Your task to perform on an android device: See recent photos Image 0: 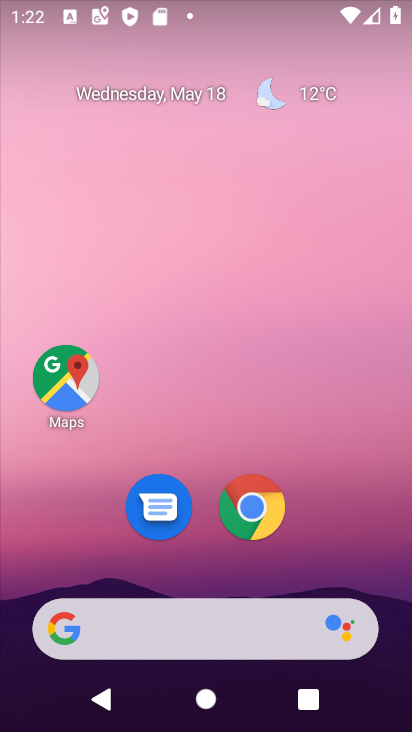
Step 0: drag from (396, 623) to (318, 154)
Your task to perform on an android device: See recent photos Image 1: 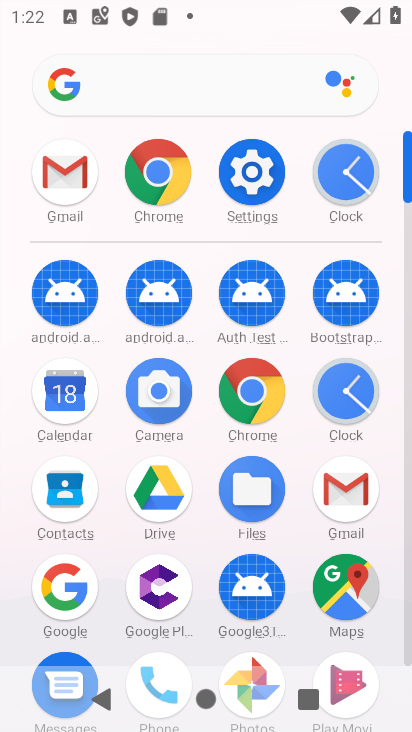
Step 1: click (406, 643)
Your task to perform on an android device: See recent photos Image 2: 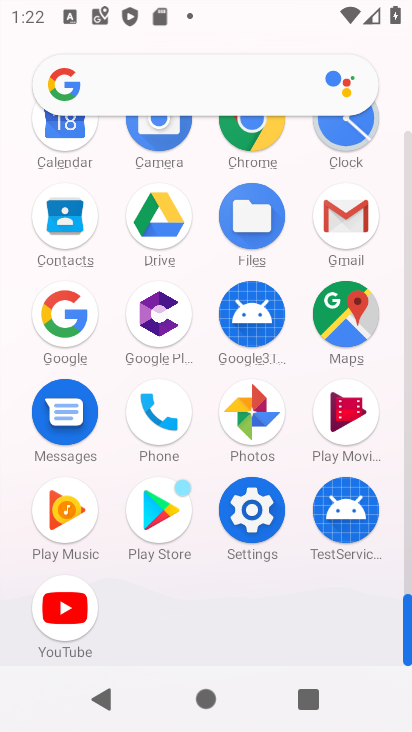
Step 2: click (252, 413)
Your task to perform on an android device: See recent photos Image 3: 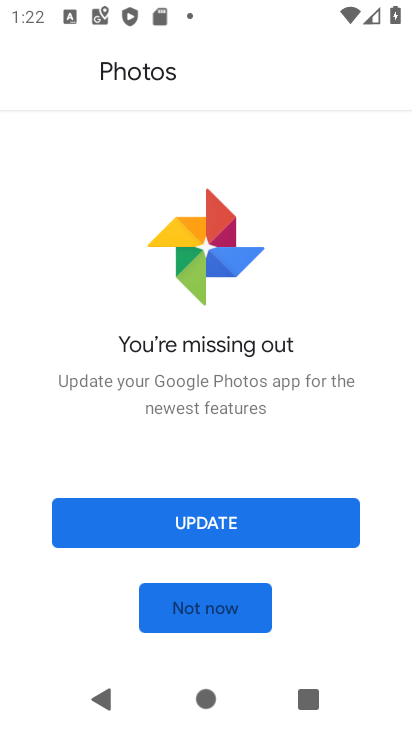
Step 3: click (209, 527)
Your task to perform on an android device: See recent photos Image 4: 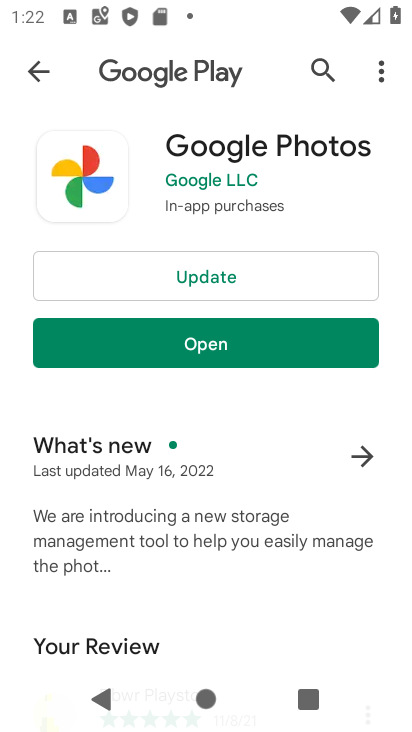
Step 4: click (204, 268)
Your task to perform on an android device: See recent photos Image 5: 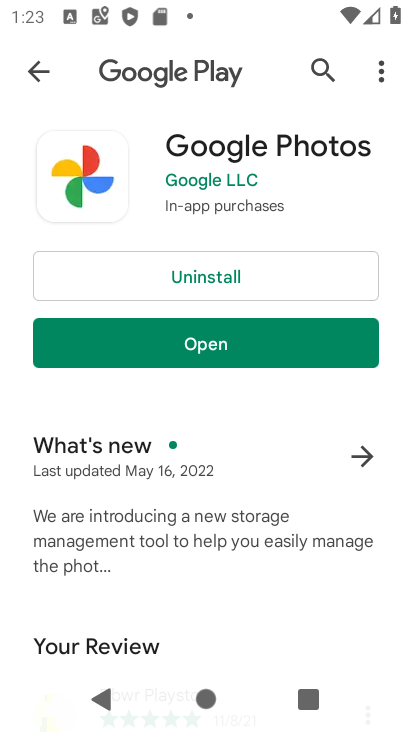
Step 5: click (220, 340)
Your task to perform on an android device: See recent photos Image 6: 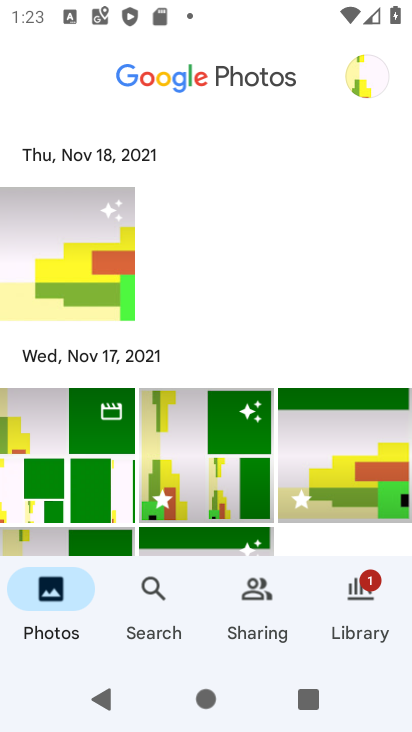
Step 6: task complete